Your task to perform on an android device: check android version Image 0: 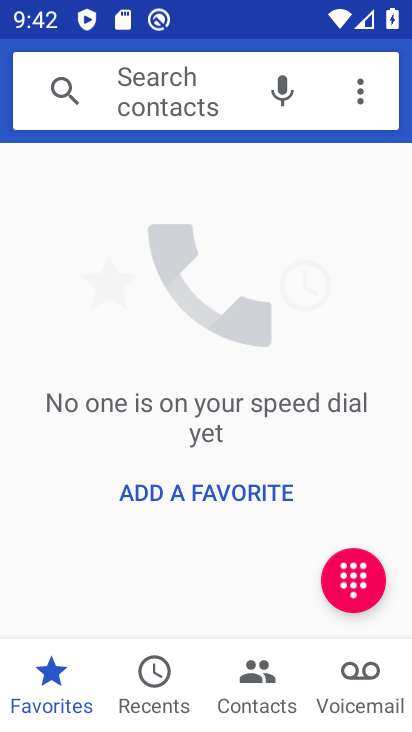
Step 0: press home button
Your task to perform on an android device: check android version Image 1: 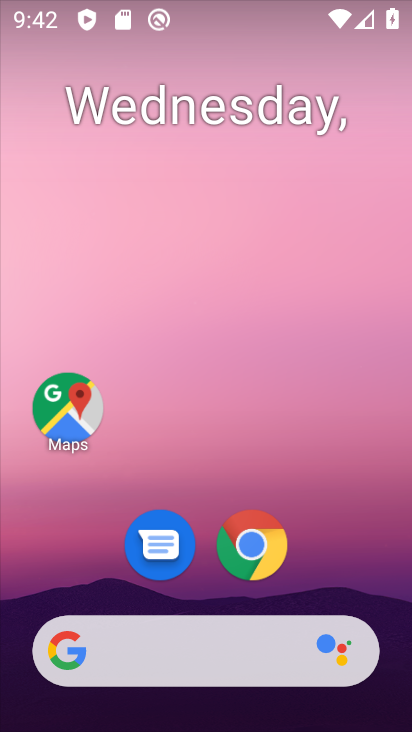
Step 1: drag from (326, 594) to (380, 104)
Your task to perform on an android device: check android version Image 2: 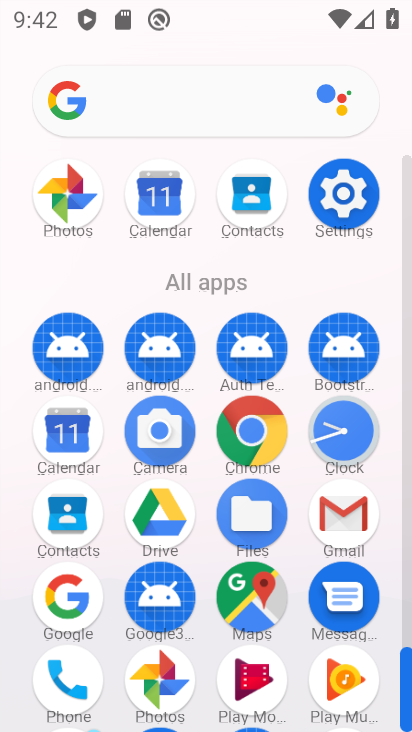
Step 2: click (332, 196)
Your task to perform on an android device: check android version Image 3: 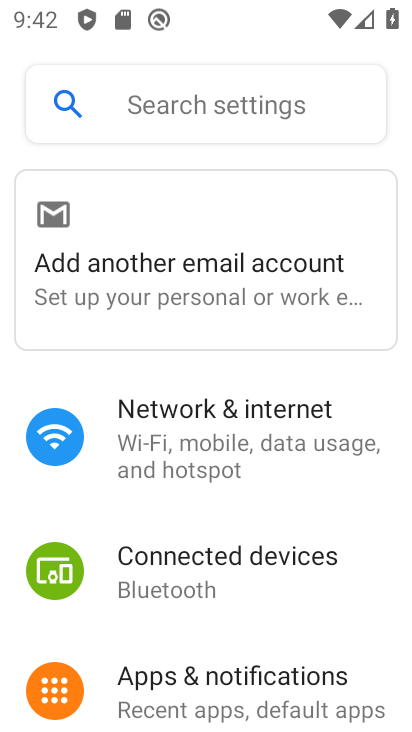
Step 3: drag from (276, 618) to (308, 56)
Your task to perform on an android device: check android version Image 4: 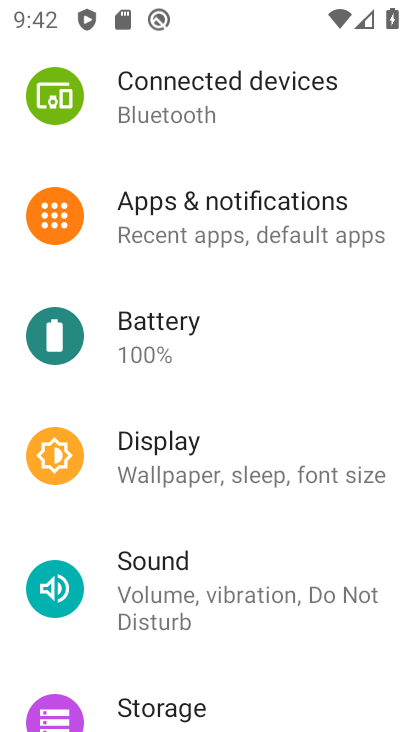
Step 4: drag from (199, 670) to (214, 20)
Your task to perform on an android device: check android version Image 5: 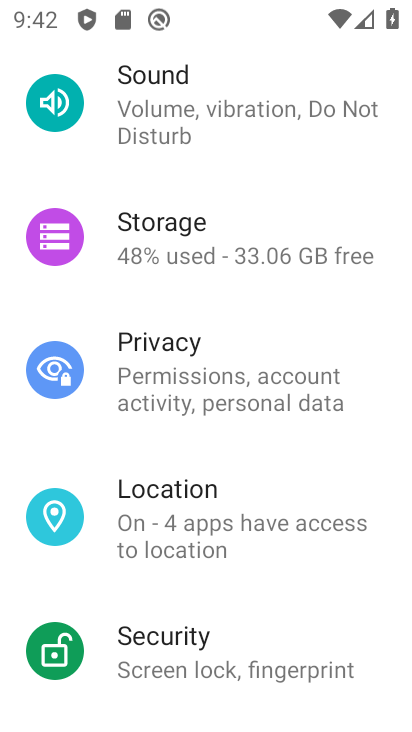
Step 5: drag from (272, 659) to (382, 61)
Your task to perform on an android device: check android version Image 6: 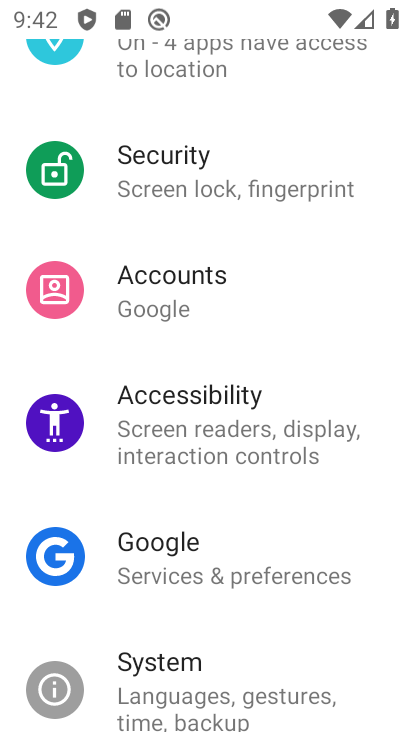
Step 6: drag from (180, 631) to (310, 46)
Your task to perform on an android device: check android version Image 7: 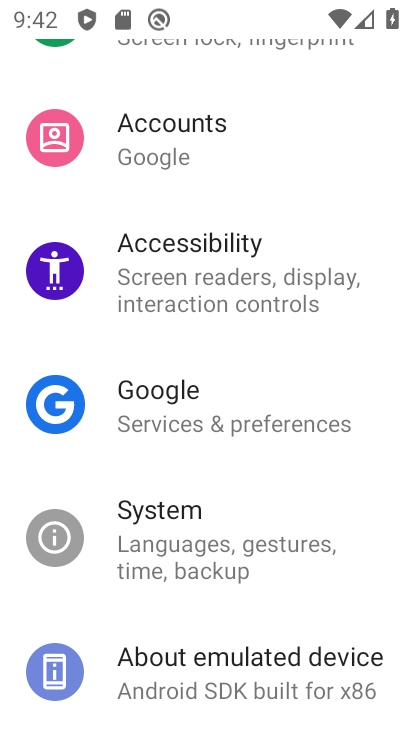
Step 7: click (173, 657)
Your task to perform on an android device: check android version Image 8: 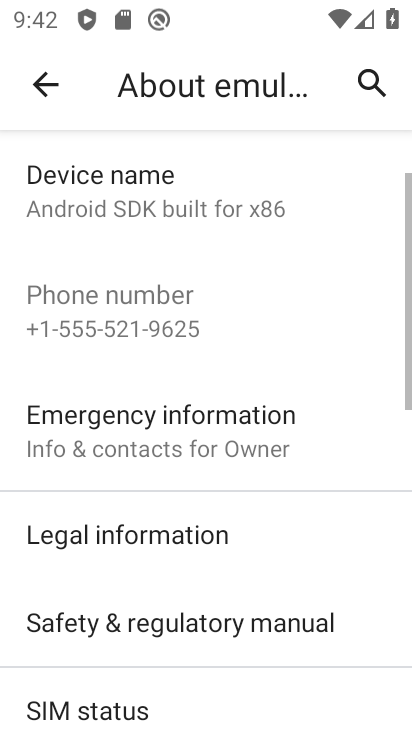
Step 8: drag from (173, 656) to (263, 56)
Your task to perform on an android device: check android version Image 9: 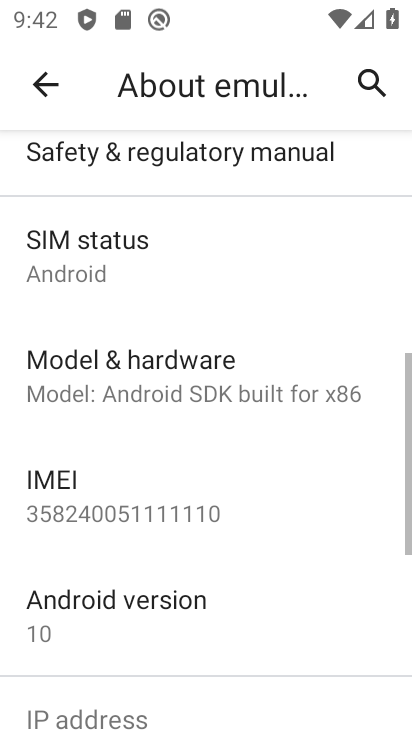
Step 9: click (25, 595)
Your task to perform on an android device: check android version Image 10: 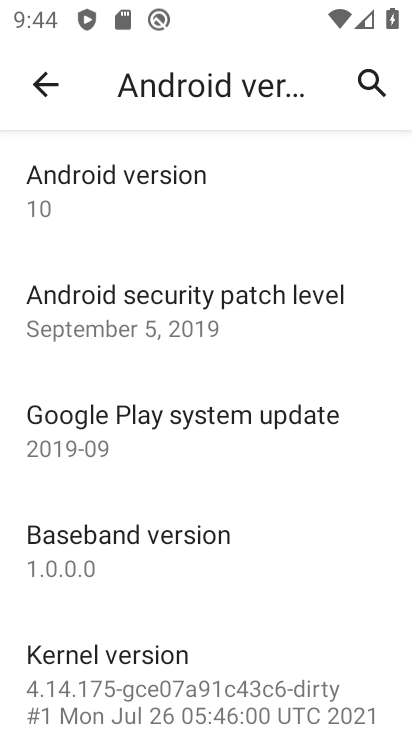
Step 10: task complete